Your task to perform on an android device: allow cookies in the chrome app Image 0: 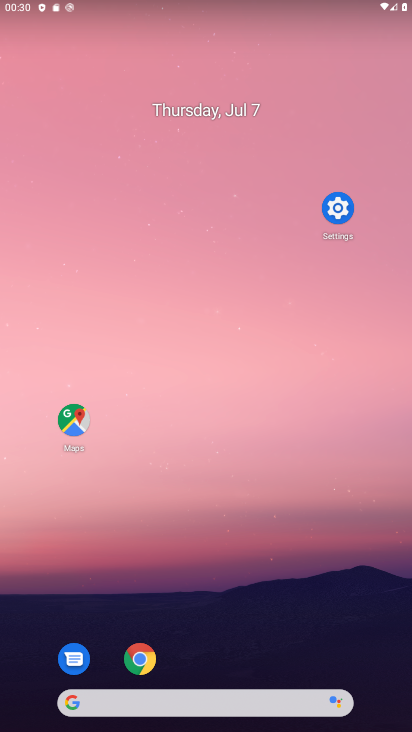
Step 0: drag from (233, 684) to (146, 111)
Your task to perform on an android device: allow cookies in the chrome app Image 1: 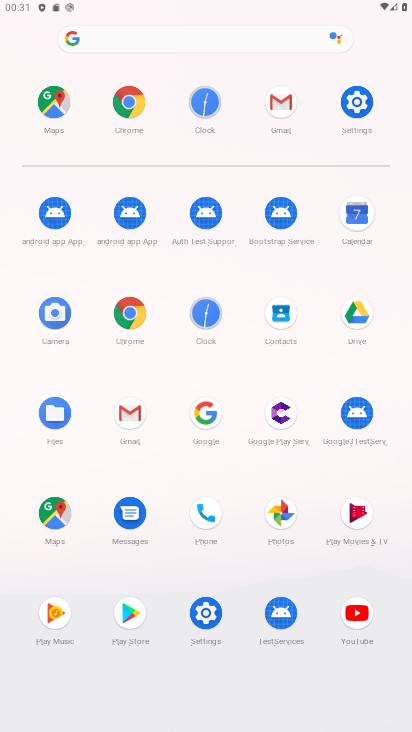
Step 1: click (123, 311)
Your task to perform on an android device: allow cookies in the chrome app Image 2: 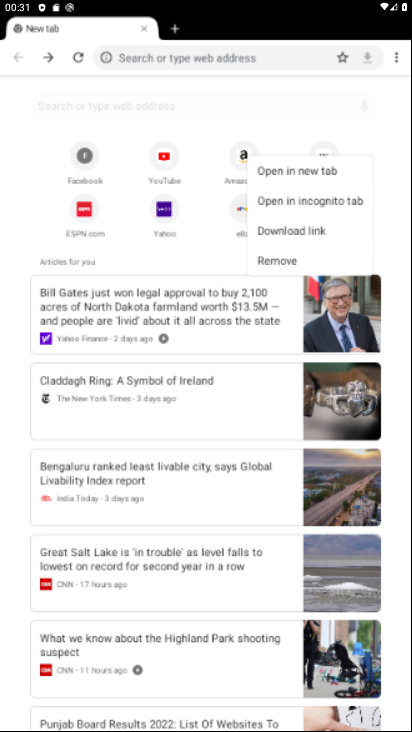
Step 2: click (145, 302)
Your task to perform on an android device: allow cookies in the chrome app Image 3: 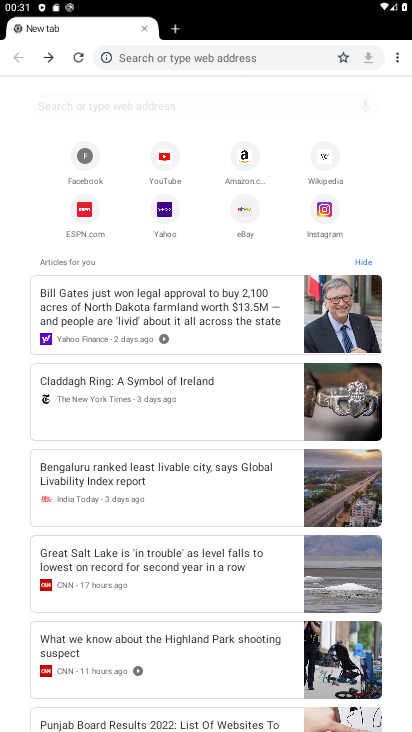
Step 3: press back button
Your task to perform on an android device: allow cookies in the chrome app Image 4: 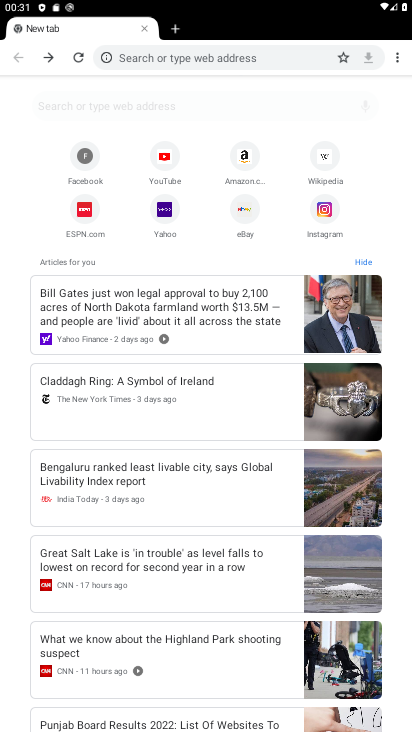
Step 4: press back button
Your task to perform on an android device: allow cookies in the chrome app Image 5: 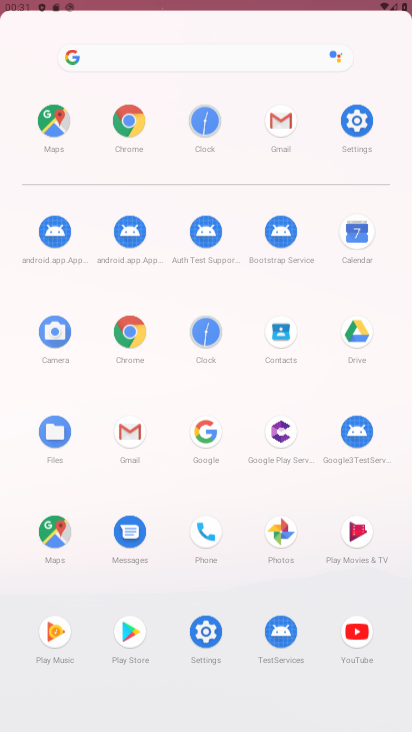
Step 5: press back button
Your task to perform on an android device: allow cookies in the chrome app Image 6: 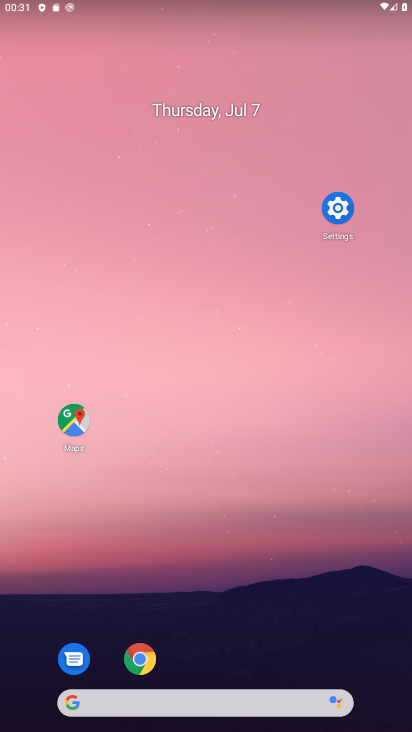
Step 6: drag from (241, 625) to (216, 26)
Your task to perform on an android device: allow cookies in the chrome app Image 7: 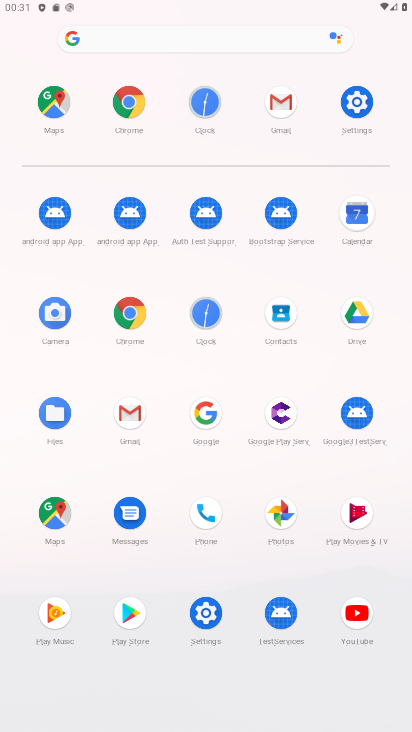
Step 7: click (124, 307)
Your task to perform on an android device: allow cookies in the chrome app Image 8: 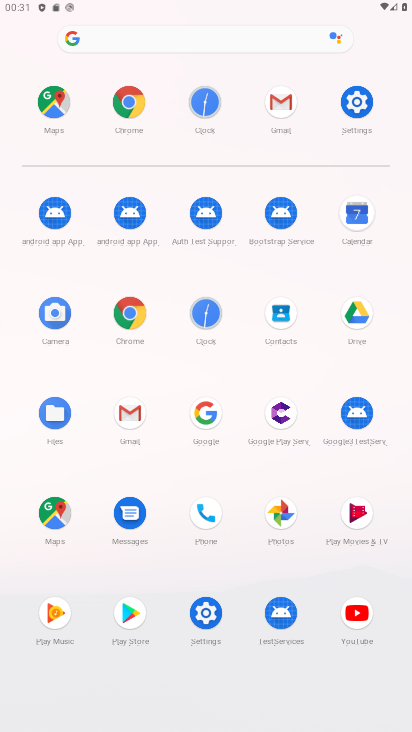
Step 8: click (124, 307)
Your task to perform on an android device: allow cookies in the chrome app Image 9: 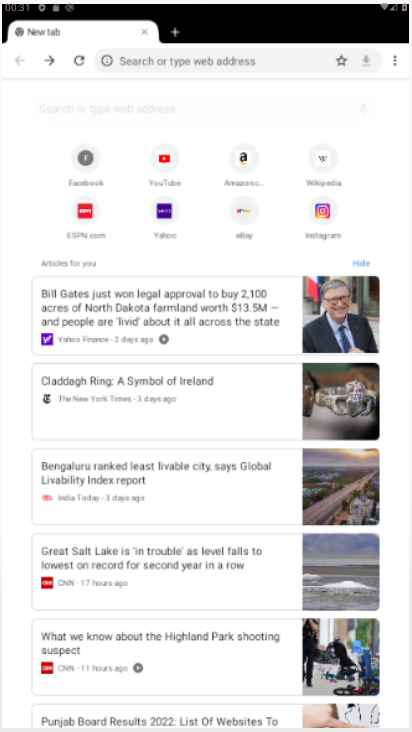
Step 9: click (136, 329)
Your task to perform on an android device: allow cookies in the chrome app Image 10: 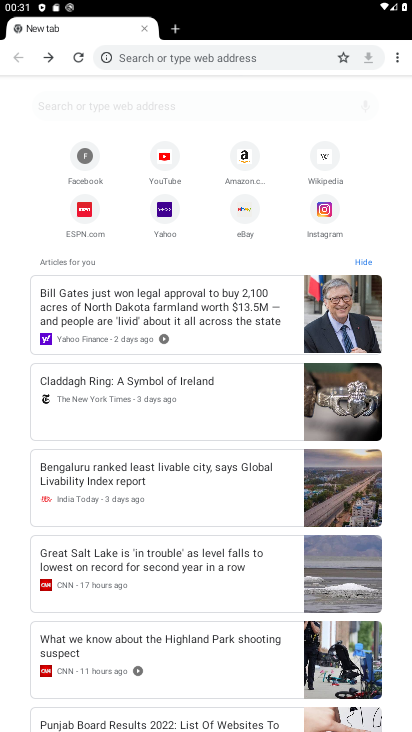
Step 10: click (395, 61)
Your task to perform on an android device: allow cookies in the chrome app Image 11: 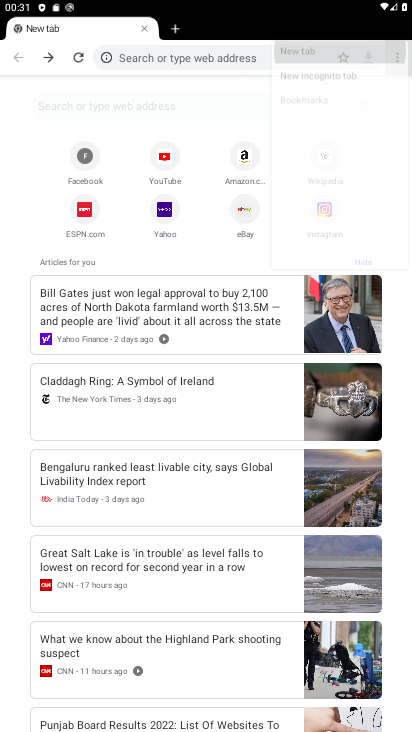
Step 11: click (395, 61)
Your task to perform on an android device: allow cookies in the chrome app Image 12: 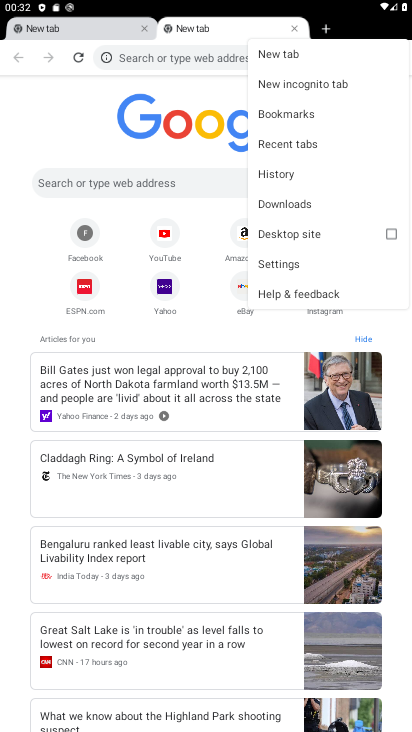
Step 12: click (280, 262)
Your task to perform on an android device: allow cookies in the chrome app Image 13: 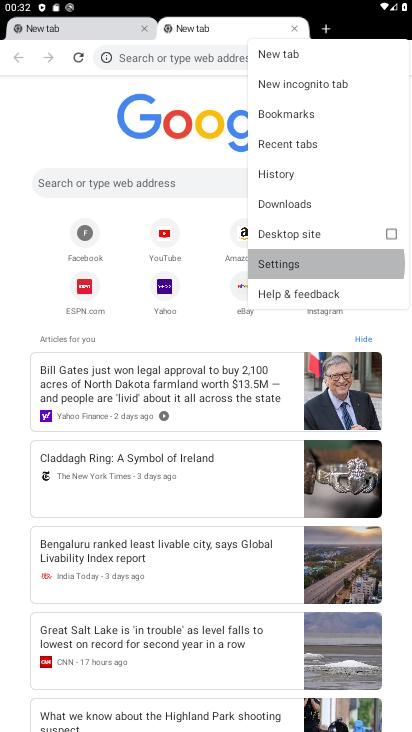
Step 13: click (290, 269)
Your task to perform on an android device: allow cookies in the chrome app Image 14: 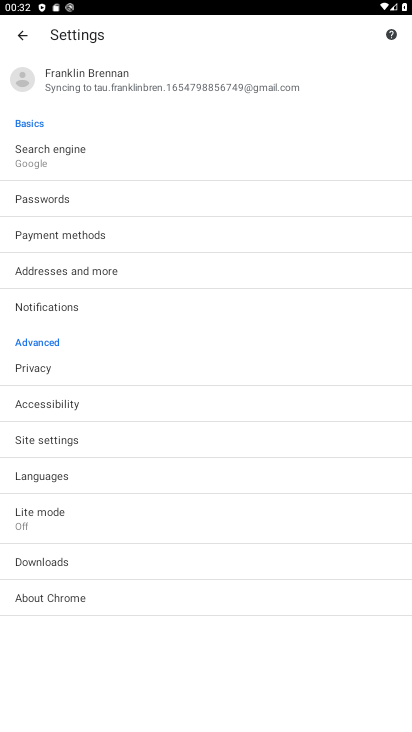
Step 14: click (79, 437)
Your task to perform on an android device: allow cookies in the chrome app Image 15: 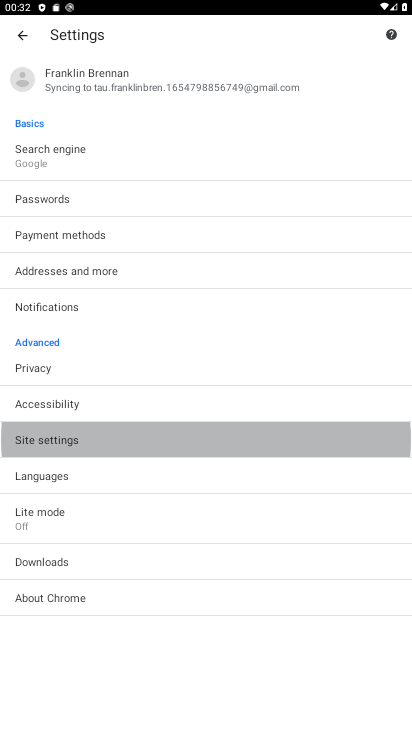
Step 15: click (80, 439)
Your task to perform on an android device: allow cookies in the chrome app Image 16: 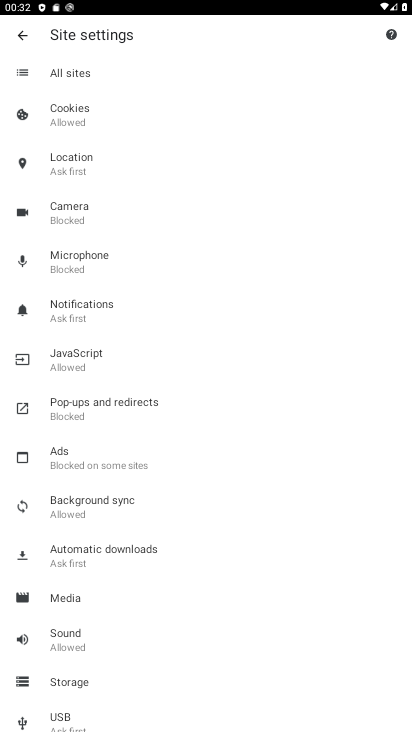
Step 16: drag from (96, 569) to (120, 232)
Your task to perform on an android device: allow cookies in the chrome app Image 17: 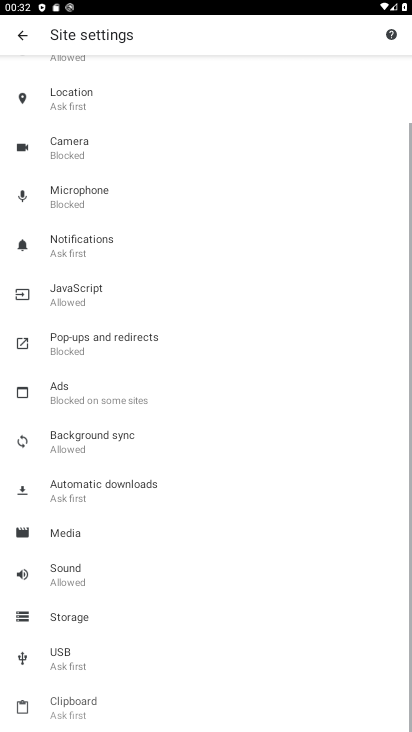
Step 17: drag from (117, 460) to (77, 230)
Your task to perform on an android device: allow cookies in the chrome app Image 18: 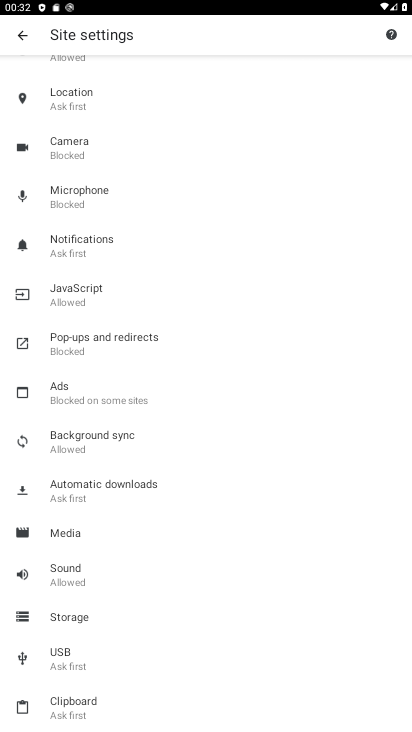
Step 18: drag from (103, 173) to (220, 658)
Your task to perform on an android device: allow cookies in the chrome app Image 19: 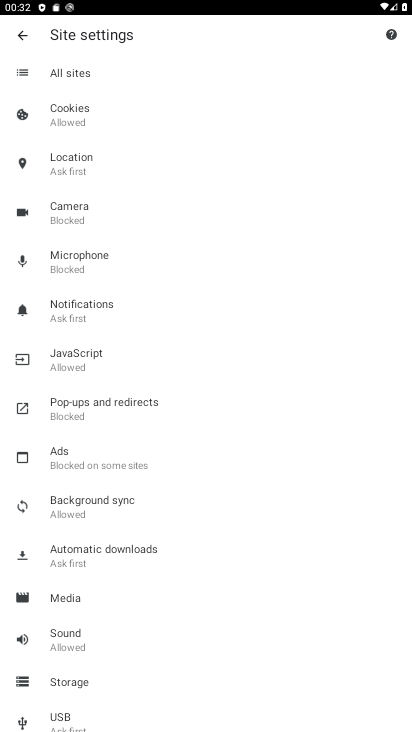
Step 19: click (76, 121)
Your task to perform on an android device: allow cookies in the chrome app Image 20: 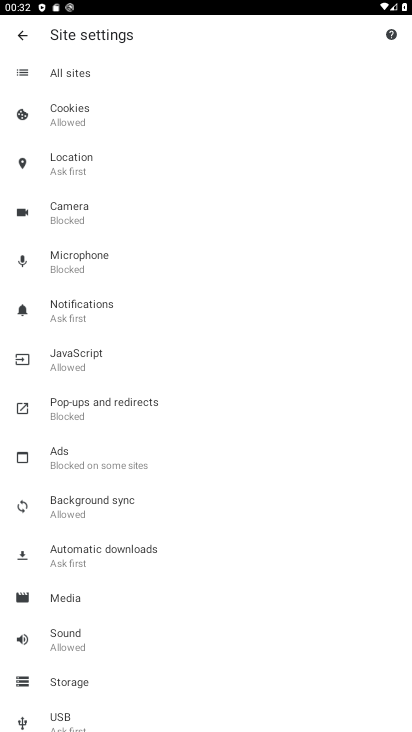
Step 20: click (76, 121)
Your task to perform on an android device: allow cookies in the chrome app Image 21: 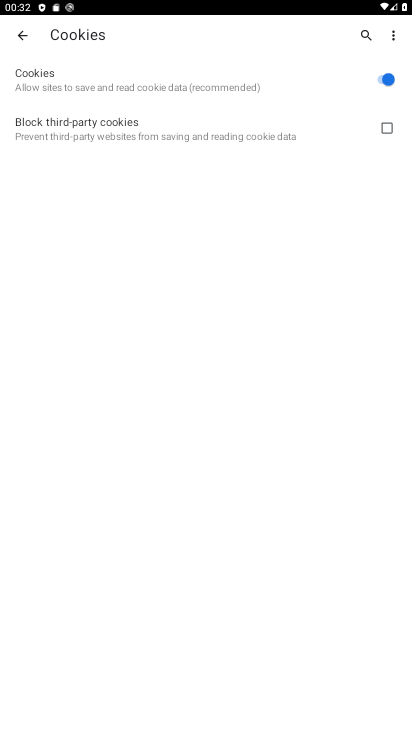
Step 21: task complete